Your task to perform on an android device: Open calendar and show me the second week of next month Image 0: 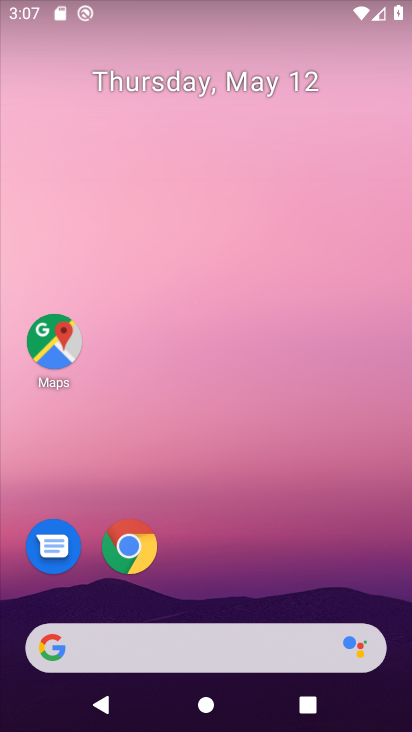
Step 0: drag from (241, 531) to (242, 268)
Your task to perform on an android device: Open calendar and show me the second week of next month Image 1: 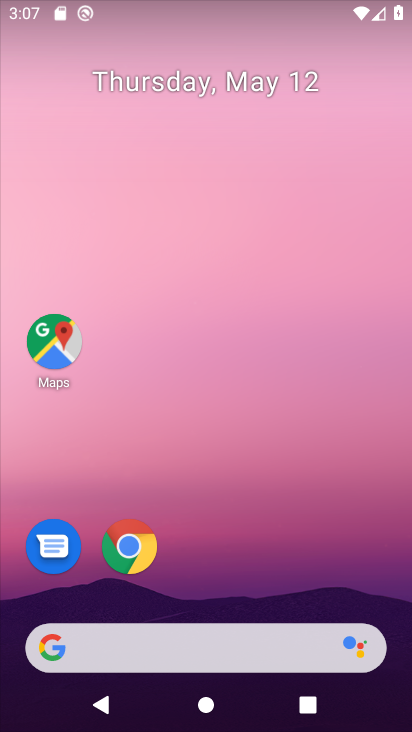
Step 1: drag from (266, 608) to (269, 266)
Your task to perform on an android device: Open calendar and show me the second week of next month Image 2: 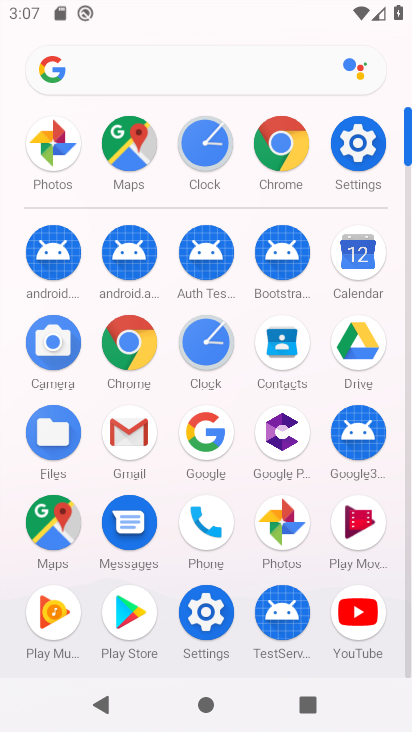
Step 2: click (361, 255)
Your task to perform on an android device: Open calendar and show me the second week of next month Image 3: 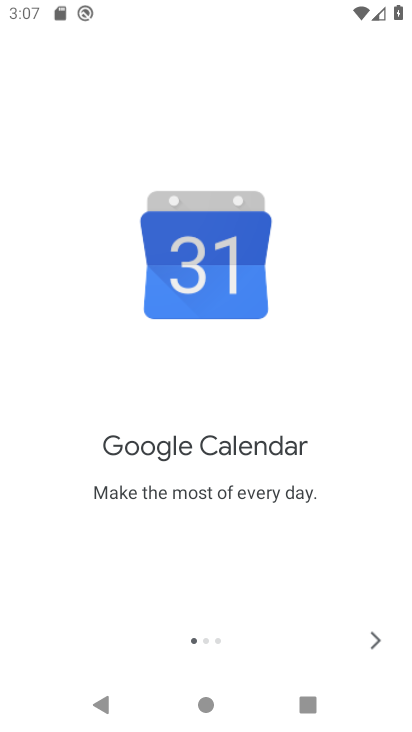
Step 3: click (381, 632)
Your task to perform on an android device: Open calendar and show me the second week of next month Image 4: 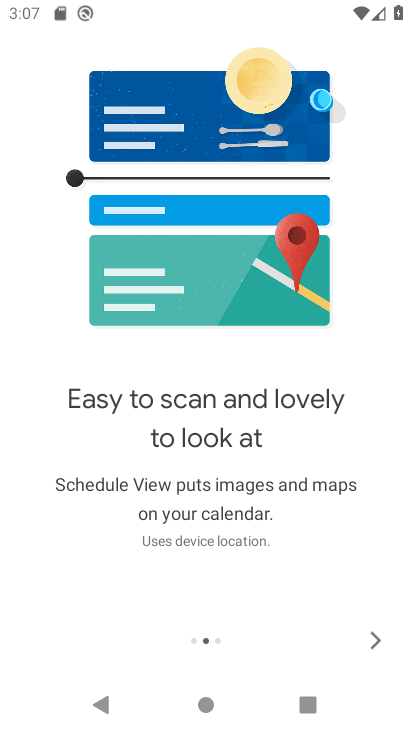
Step 4: click (380, 631)
Your task to perform on an android device: Open calendar and show me the second week of next month Image 5: 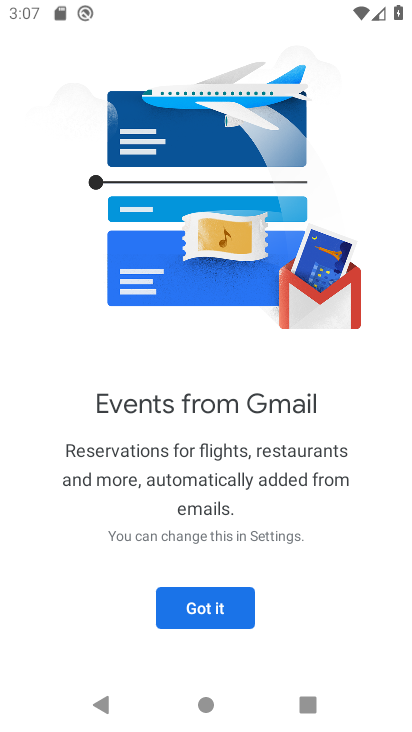
Step 5: click (209, 589)
Your task to perform on an android device: Open calendar and show me the second week of next month Image 6: 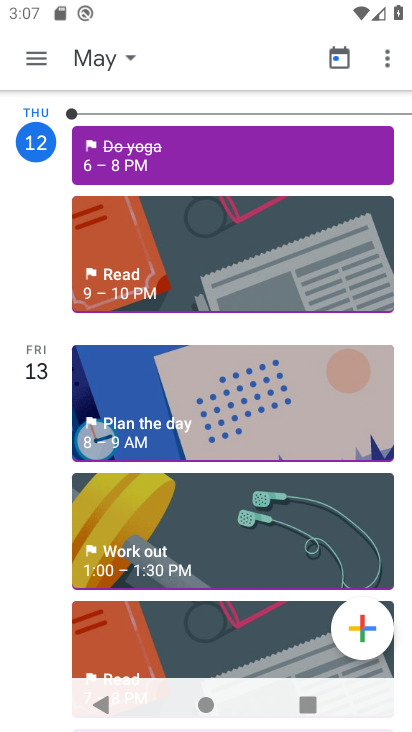
Step 6: click (51, 56)
Your task to perform on an android device: Open calendar and show me the second week of next month Image 7: 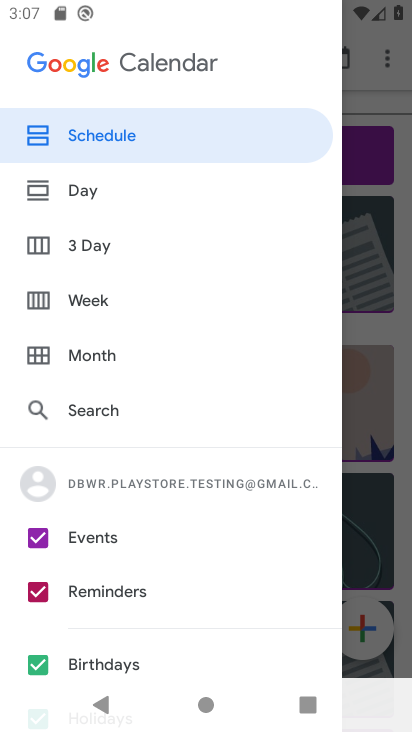
Step 7: click (104, 353)
Your task to perform on an android device: Open calendar and show me the second week of next month Image 8: 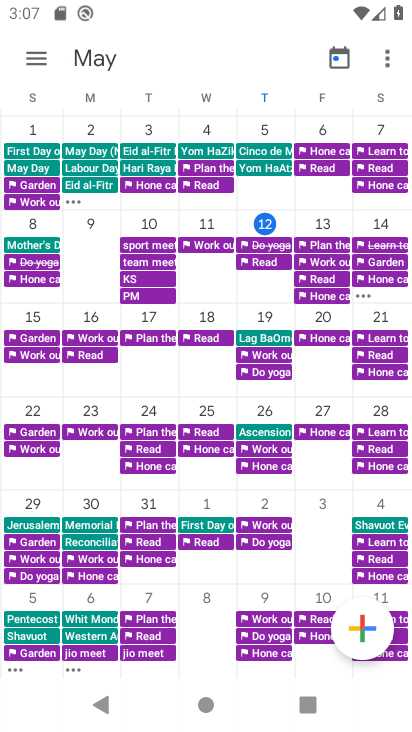
Step 8: task complete